Your task to perform on an android device: Go to internet settings Image 0: 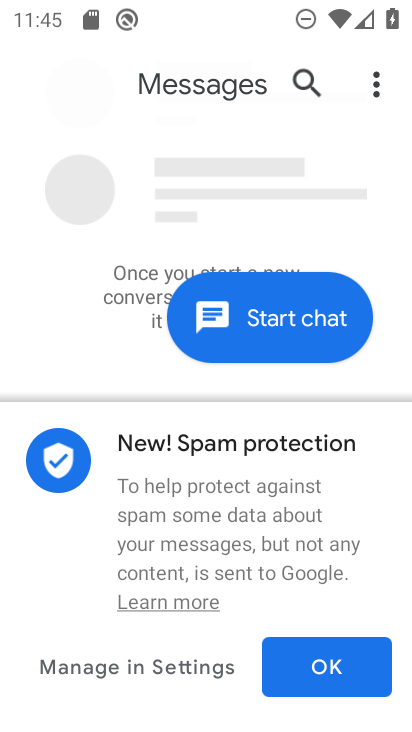
Step 0: press home button
Your task to perform on an android device: Go to internet settings Image 1: 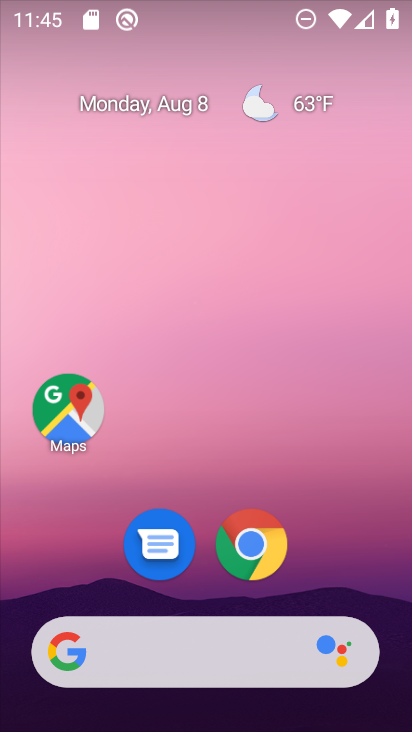
Step 1: drag from (187, 656) to (262, 67)
Your task to perform on an android device: Go to internet settings Image 2: 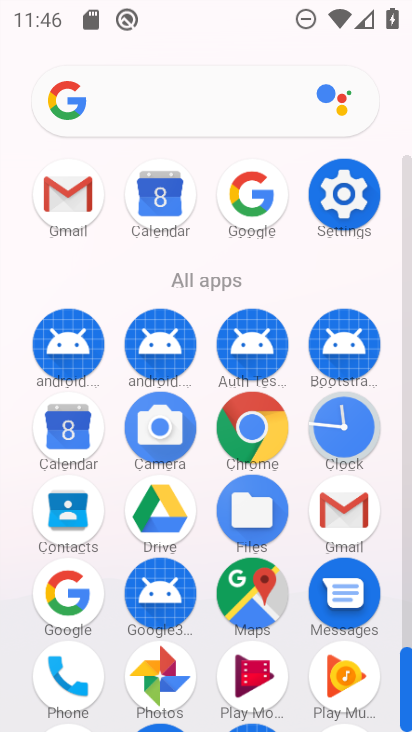
Step 2: click (346, 190)
Your task to perform on an android device: Go to internet settings Image 3: 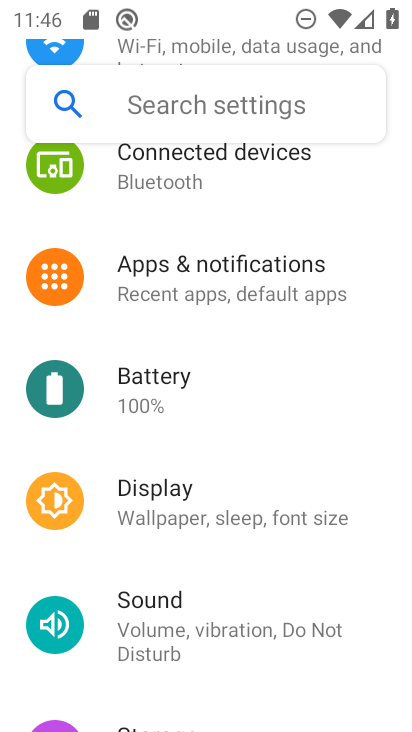
Step 3: drag from (214, 351) to (215, 452)
Your task to perform on an android device: Go to internet settings Image 4: 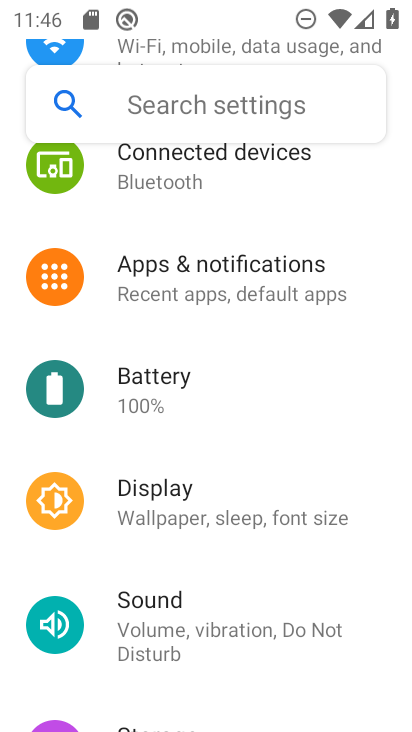
Step 4: drag from (229, 303) to (221, 558)
Your task to perform on an android device: Go to internet settings Image 5: 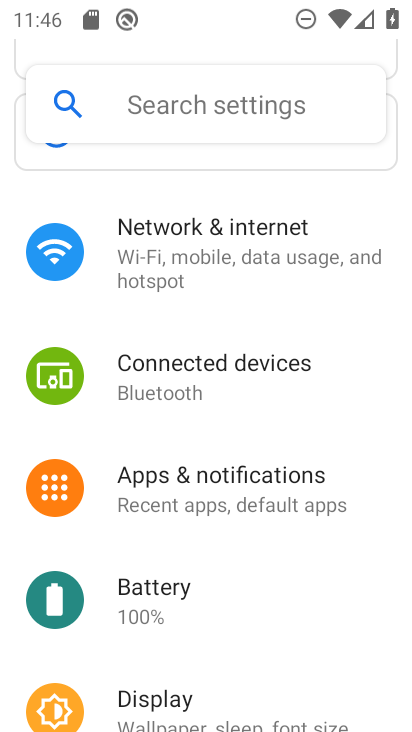
Step 5: click (233, 256)
Your task to perform on an android device: Go to internet settings Image 6: 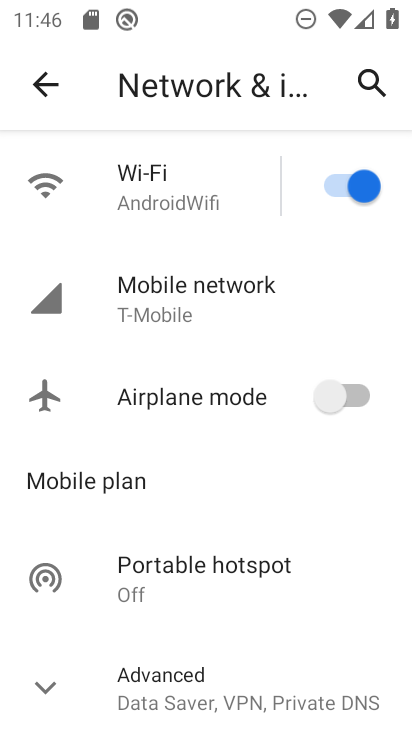
Step 6: task complete